Your task to perform on an android device: open app "Etsy: Buy & Sell Unique Items" Image 0: 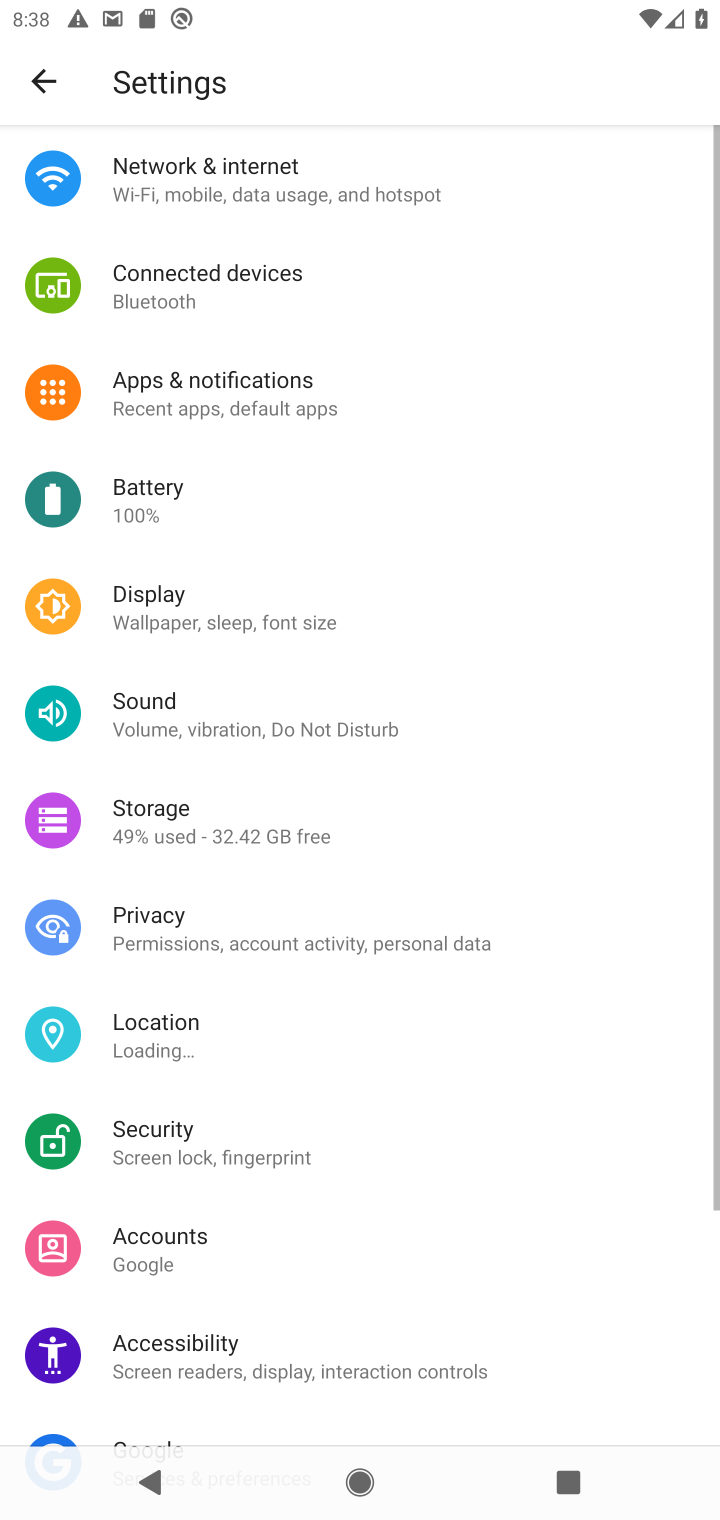
Step 0: press home button
Your task to perform on an android device: open app "Etsy: Buy & Sell Unique Items" Image 1: 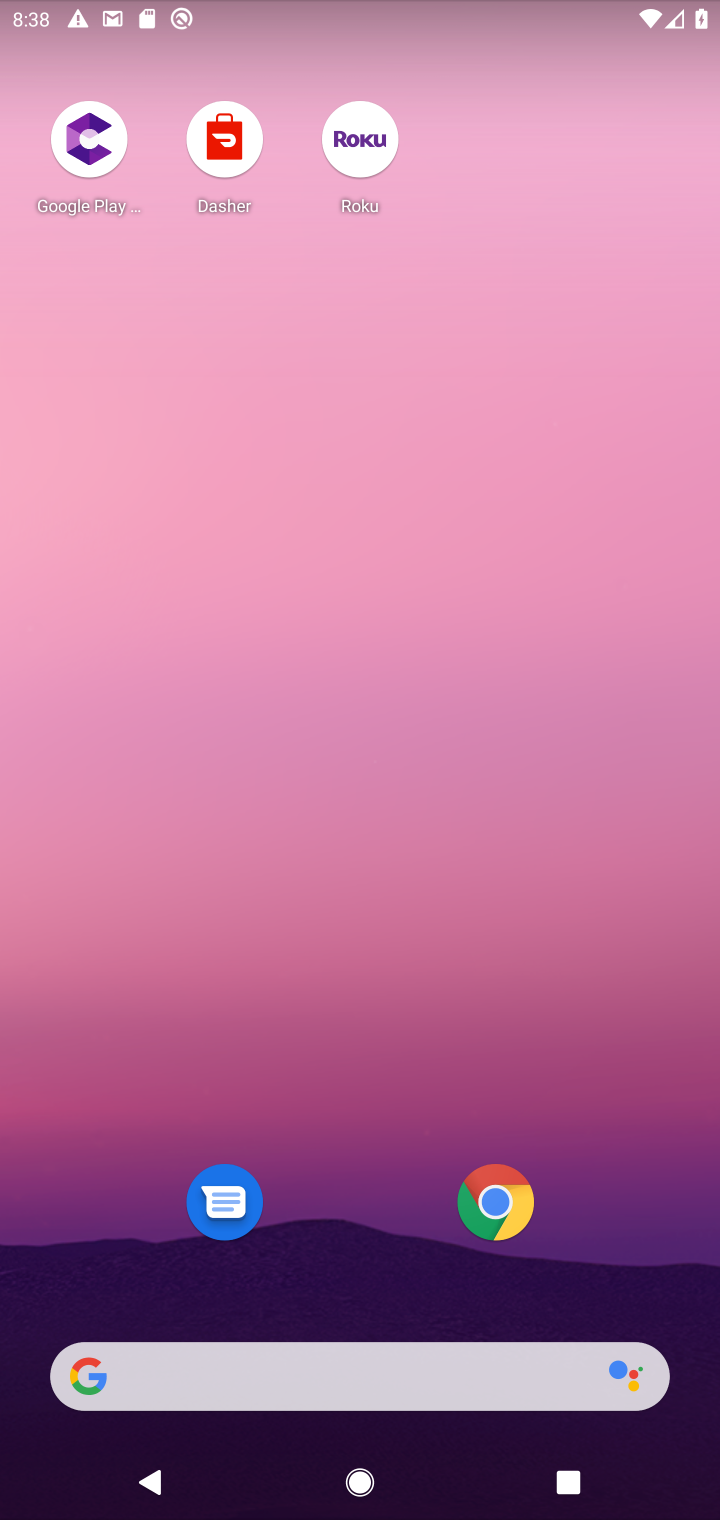
Step 1: drag from (416, 1115) to (611, 179)
Your task to perform on an android device: open app "Etsy: Buy & Sell Unique Items" Image 2: 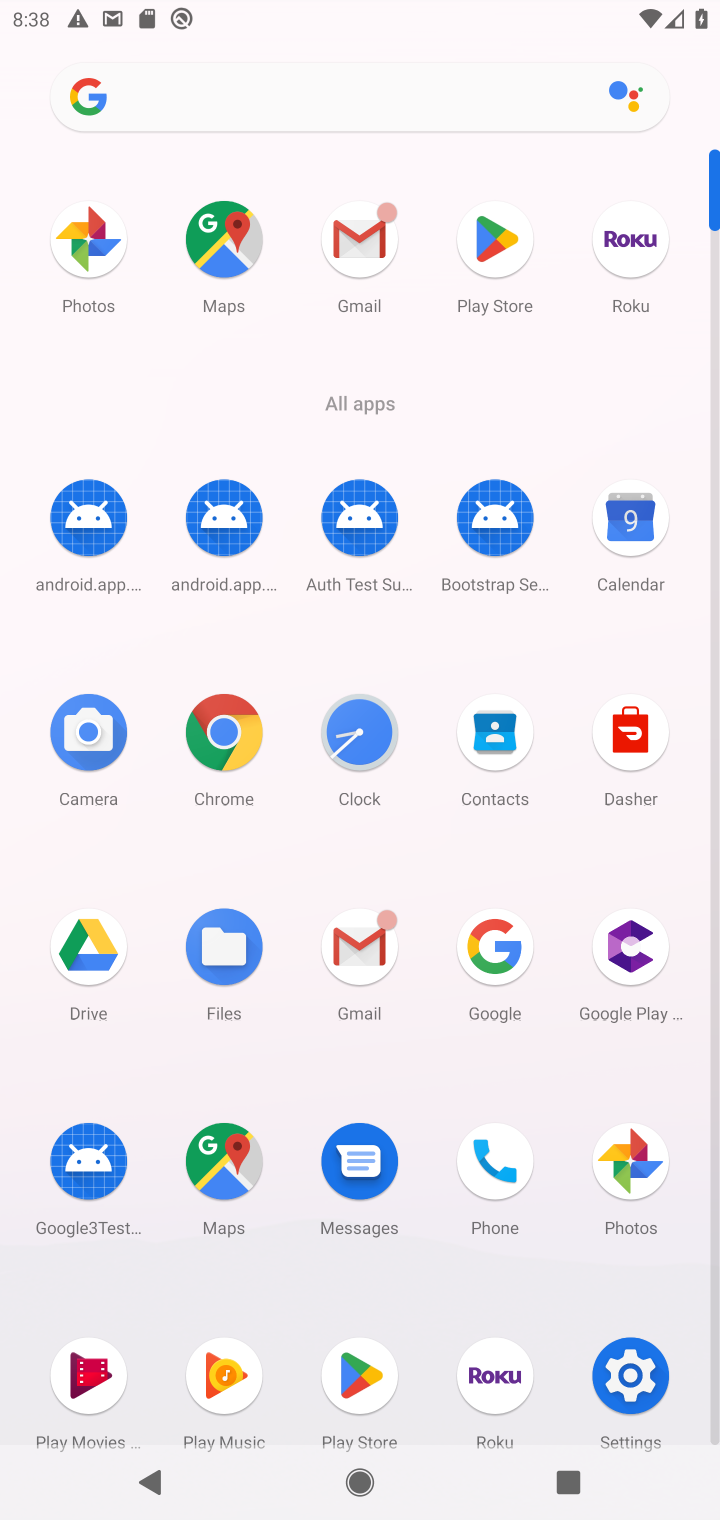
Step 2: click (500, 240)
Your task to perform on an android device: open app "Etsy: Buy & Sell Unique Items" Image 3: 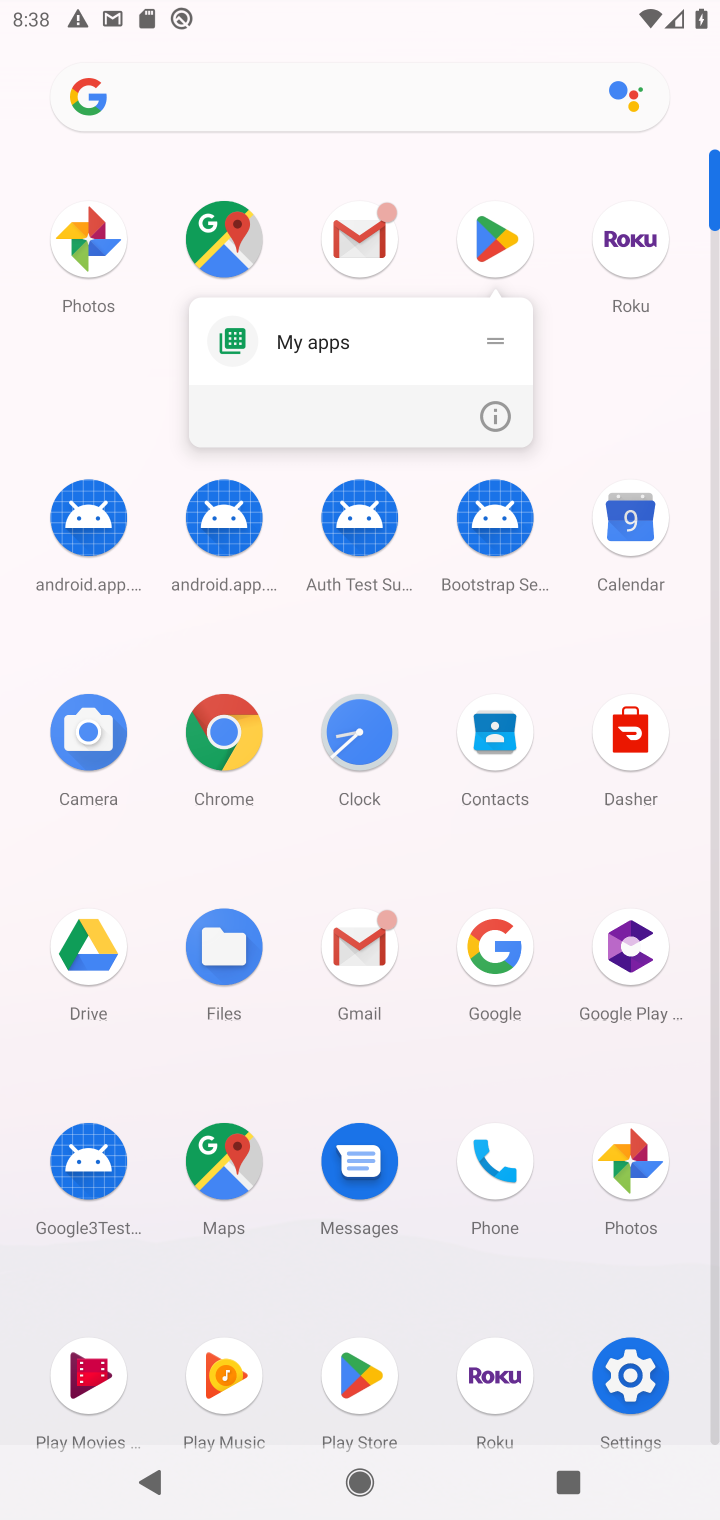
Step 3: click (493, 253)
Your task to perform on an android device: open app "Etsy: Buy & Sell Unique Items" Image 4: 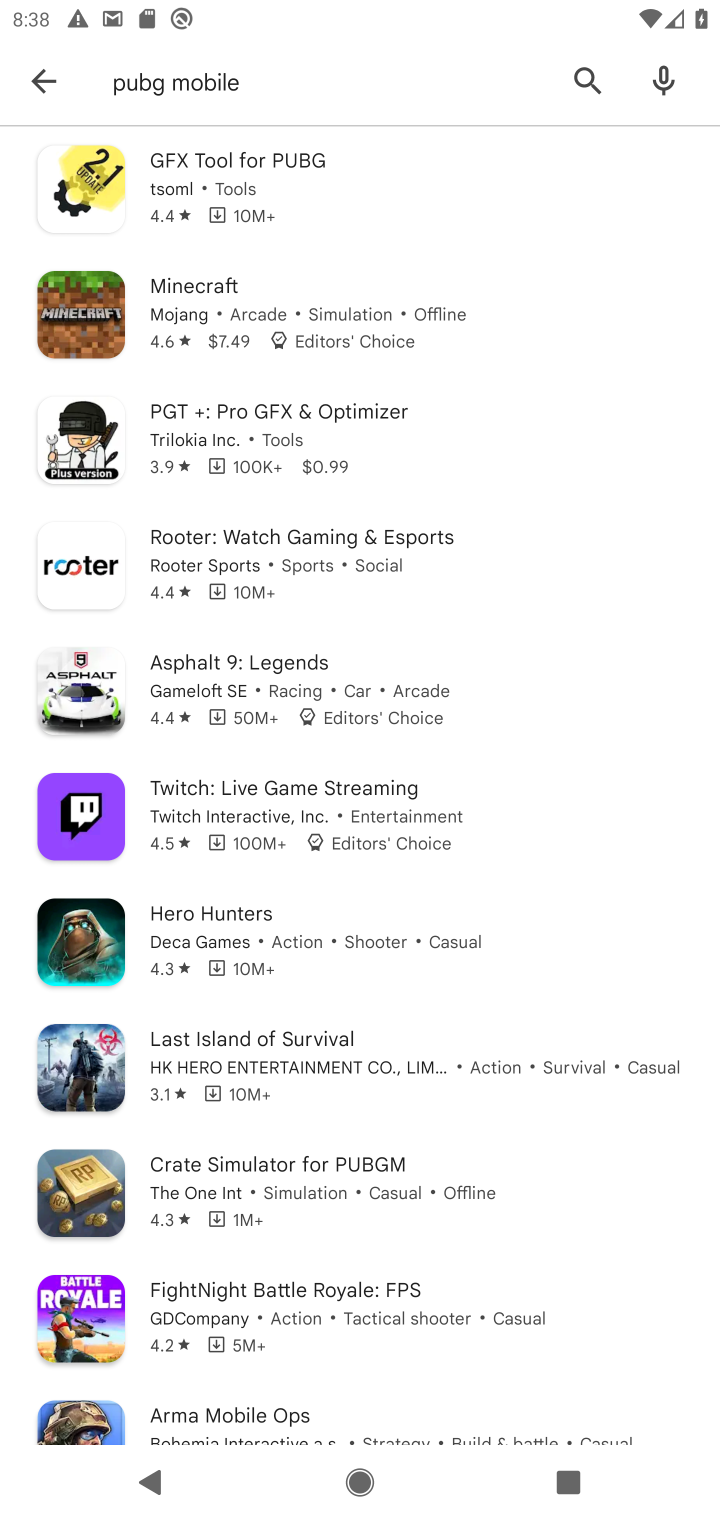
Step 4: press back button
Your task to perform on an android device: open app "Etsy: Buy & Sell Unique Items" Image 5: 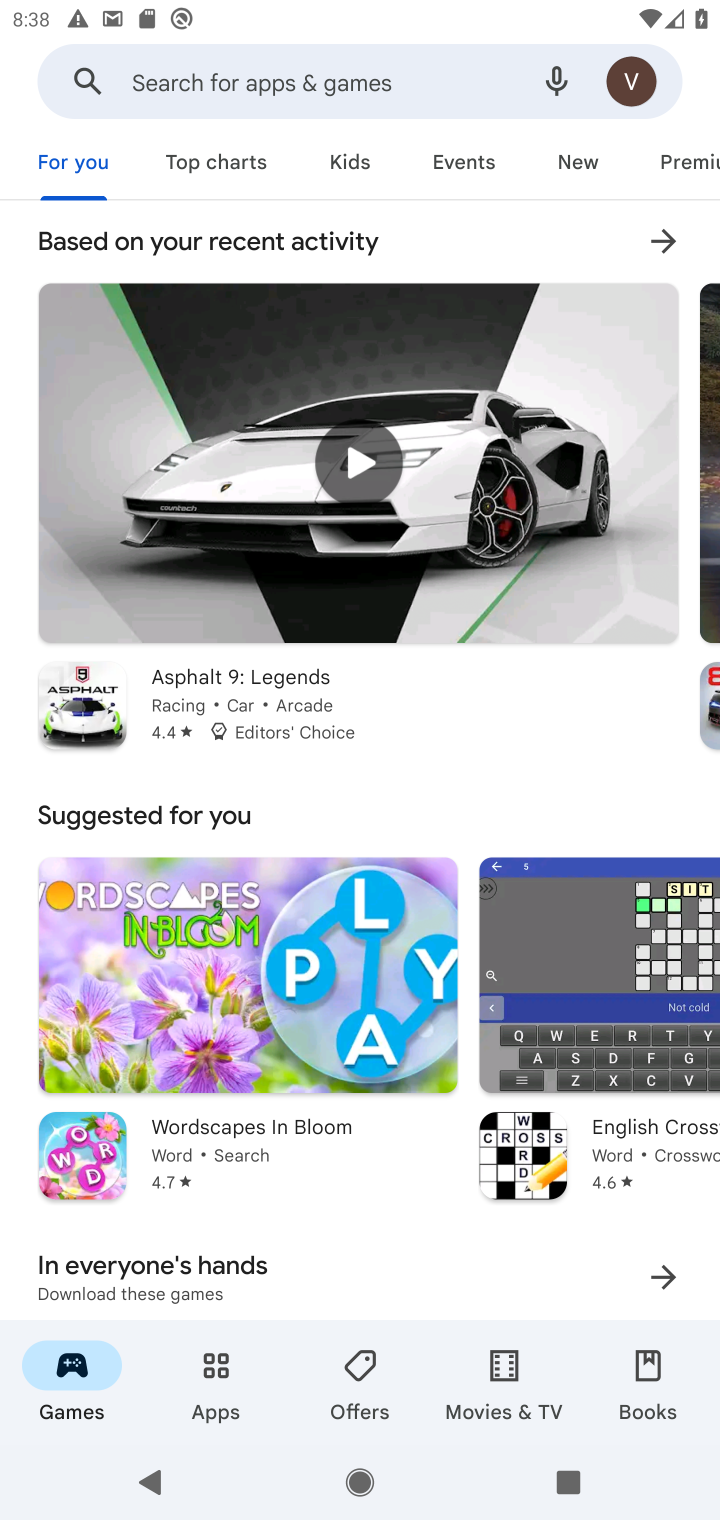
Step 5: click (270, 89)
Your task to perform on an android device: open app "Etsy: Buy & Sell Unique Items" Image 6: 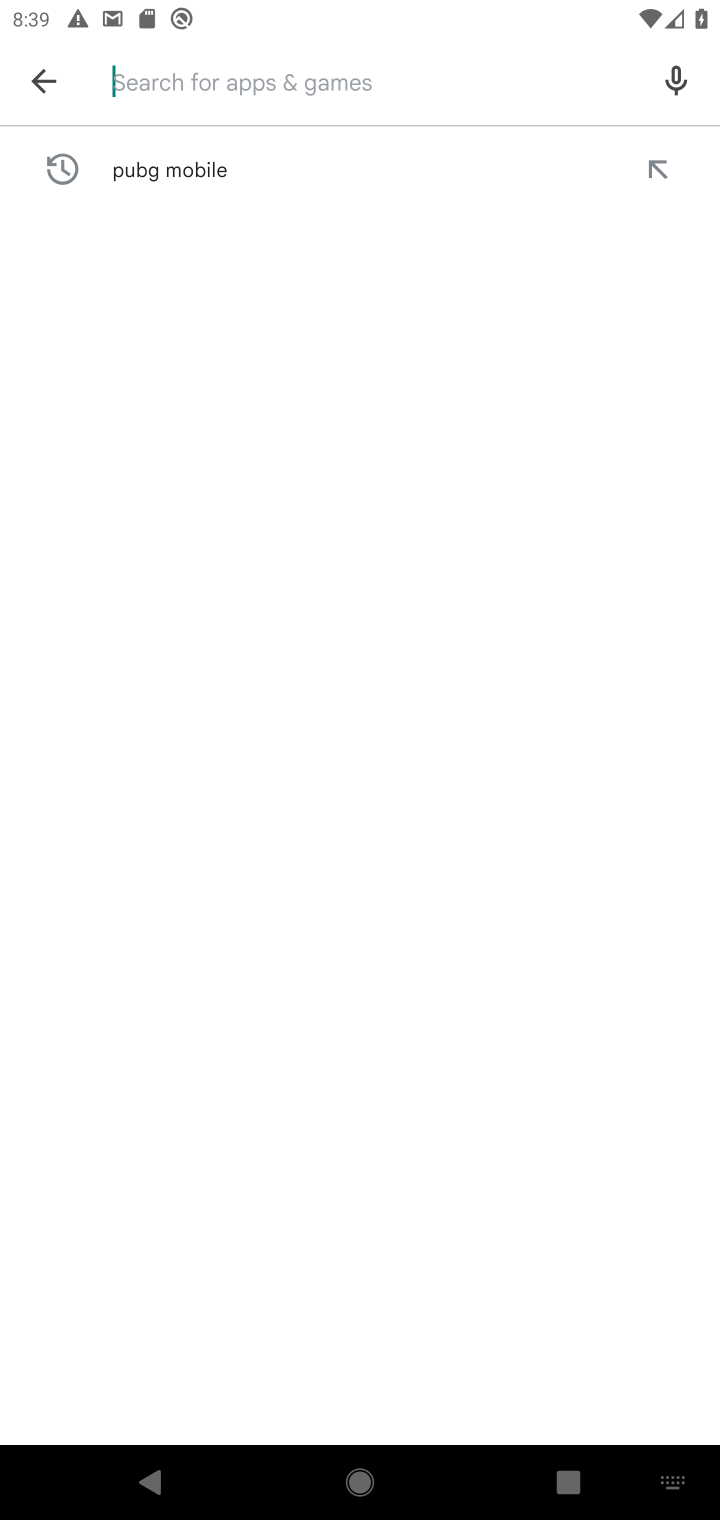
Step 6: type "Etsy: Buy & Sell Unique Items"
Your task to perform on an android device: open app "Etsy: Buy & Sell Unique Items" Image 7: 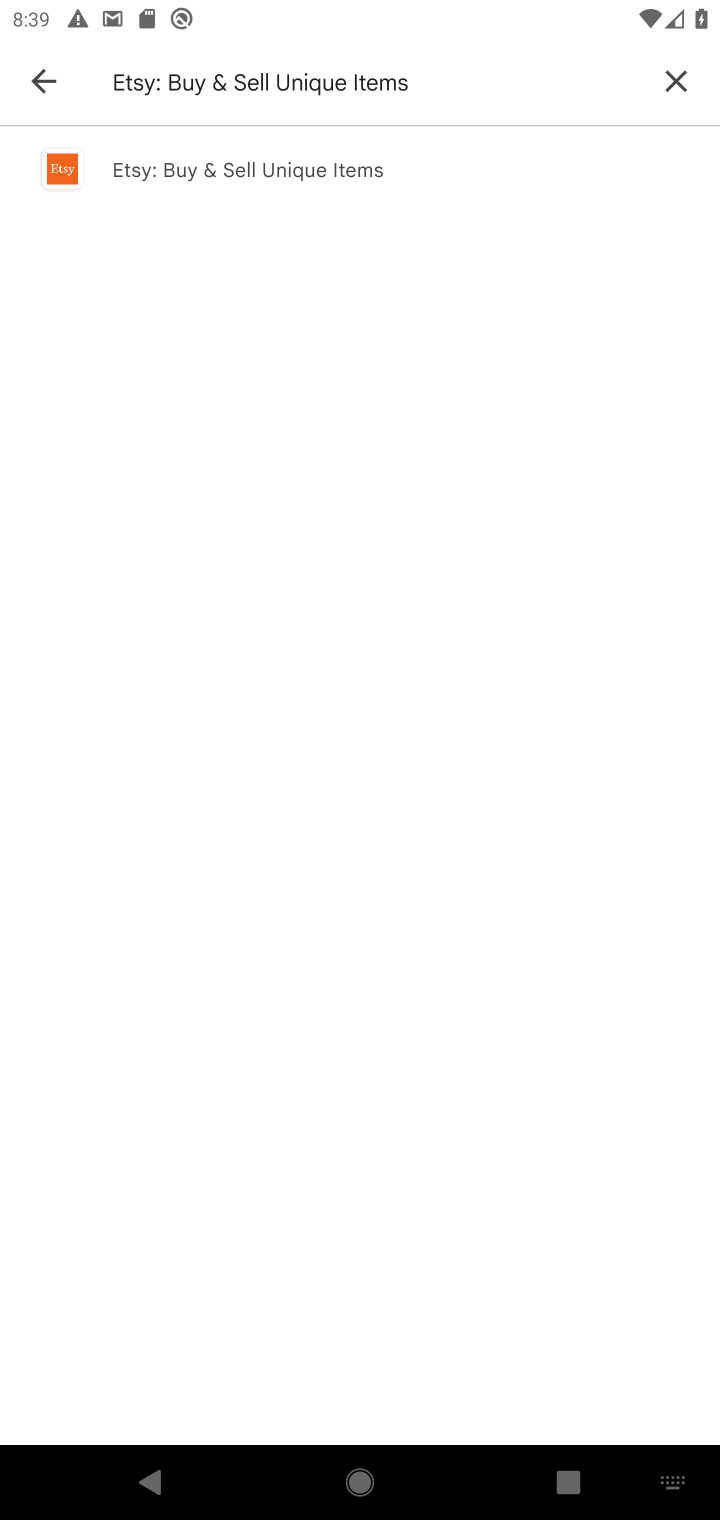
Step 7: click (341, 189)
Your task to perform on an android device: open app "Etsy: Buy & Sell Unique Items" Image 8: 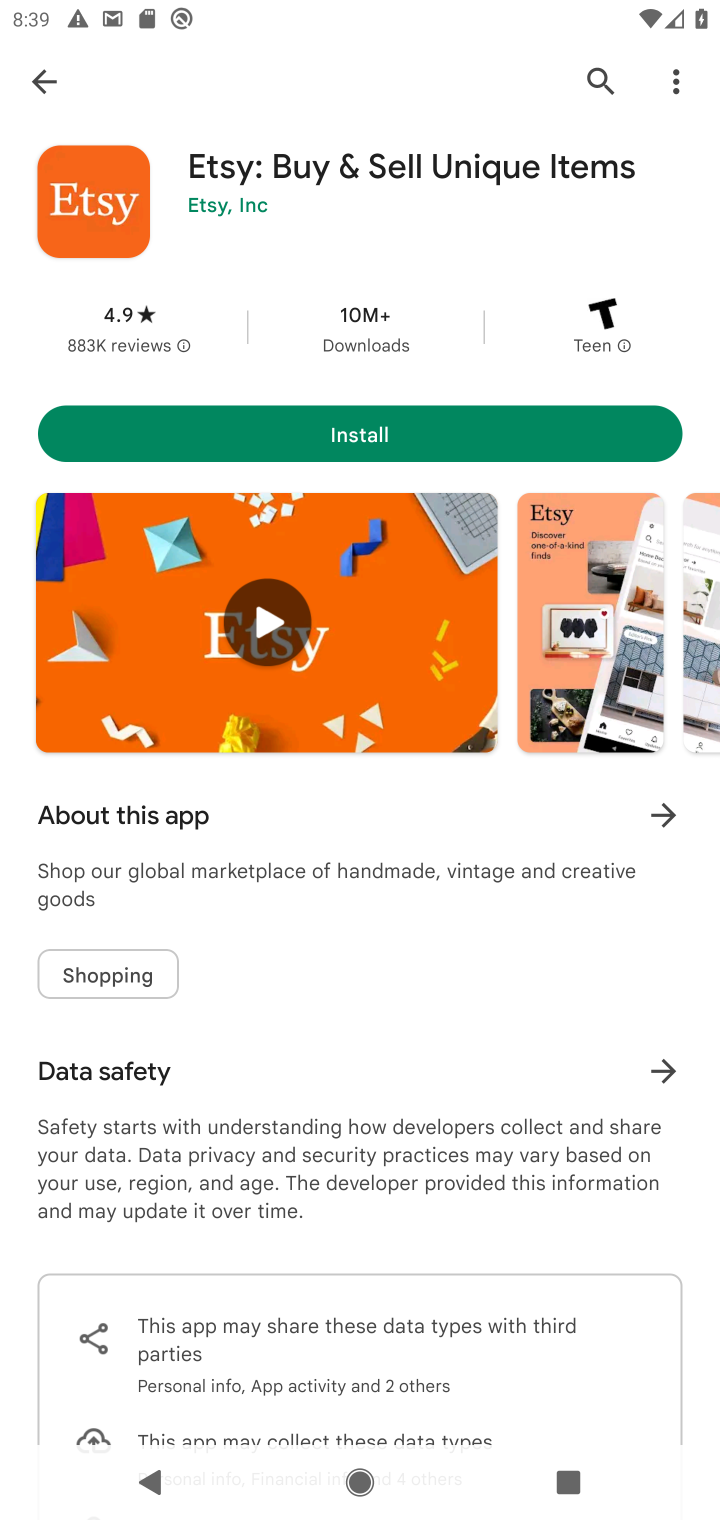
Step 8: task complete